Your task to perform on an android device: turn off data saver in the chrome app Image 0: 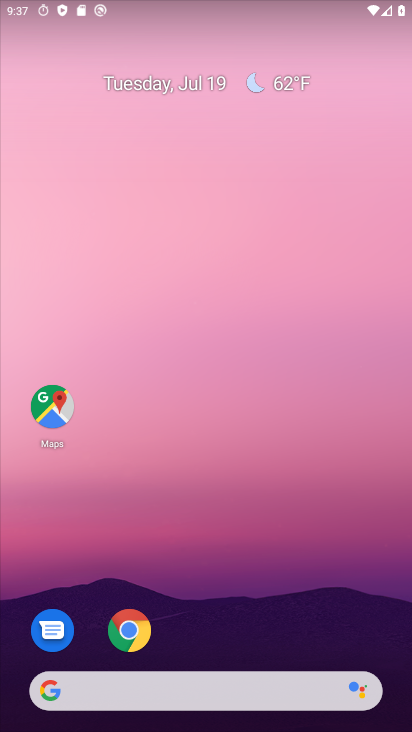
Step 0: click (133, 631)
Your task to perform on an android device: turn off data saver in the chrome app Image 1: 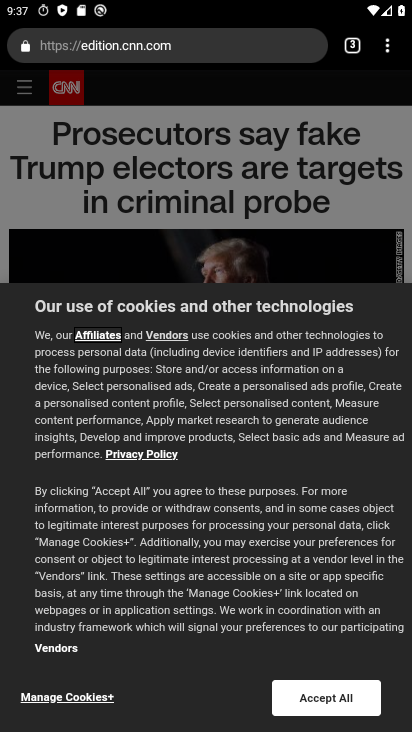
Step 1: click (384, 44)
Your task to perform on an android device: turn off data saver in the chrome app Image 2: 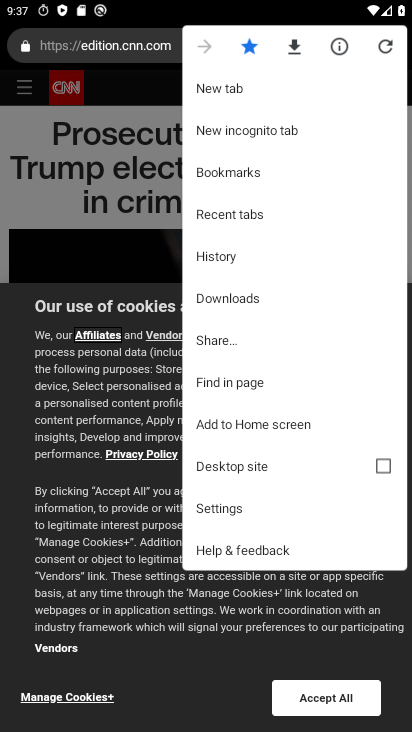
Step 2: click (224, 507)
Your task to perform on an android device: turn off data saver in the chrome app Image 3: 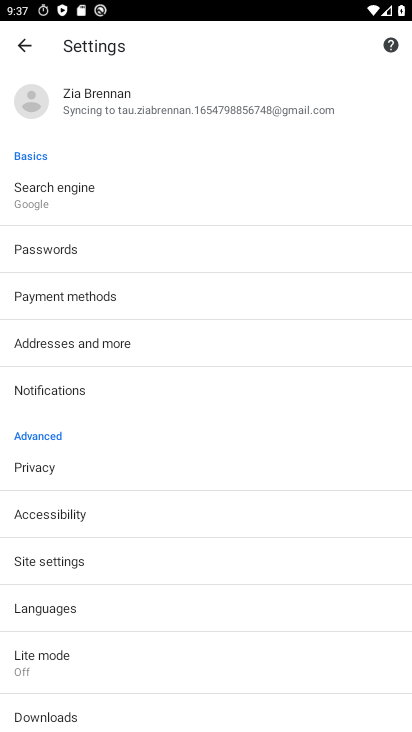
Step 3: click (49, 662)
Your task to perform on an android device: turn off data saver in the chrome app Image 4: 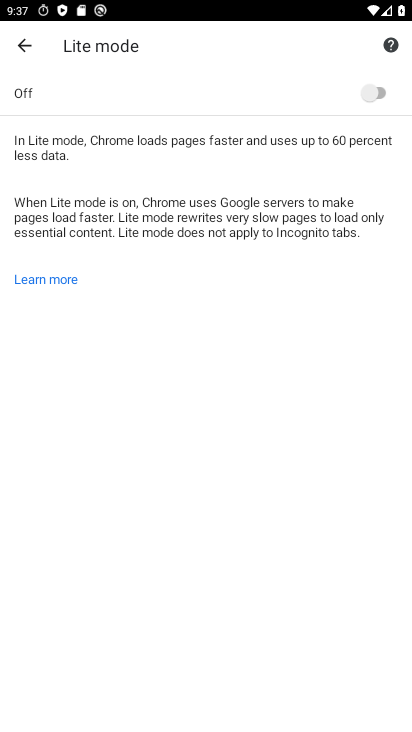
Step 4: task complete